Your task to perform on an android device: Open wifi settings Image 0: 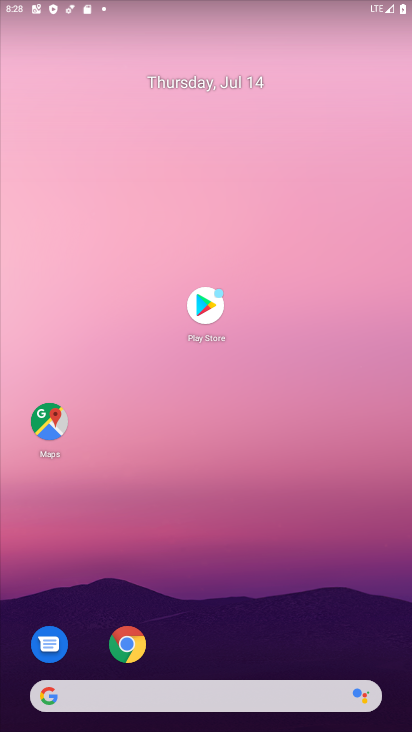
Step 0: drag from (182, 655) to (244, 230)
Your task to perform on an android device: Open wifi settings Image 1: 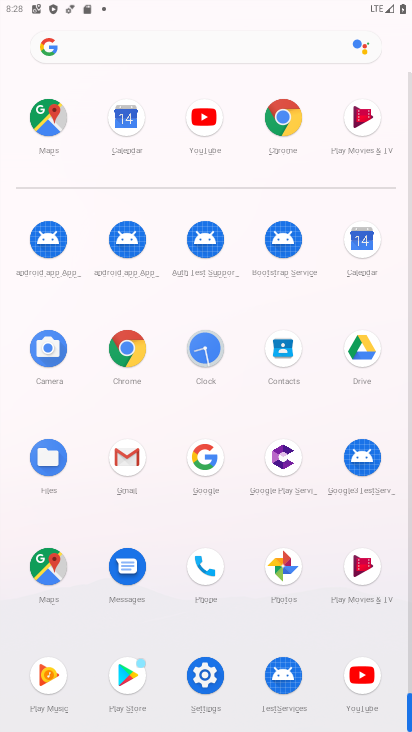
Step 1: click (194, 670)
Your task to perform on an android device: Open wifi settings Image 2: 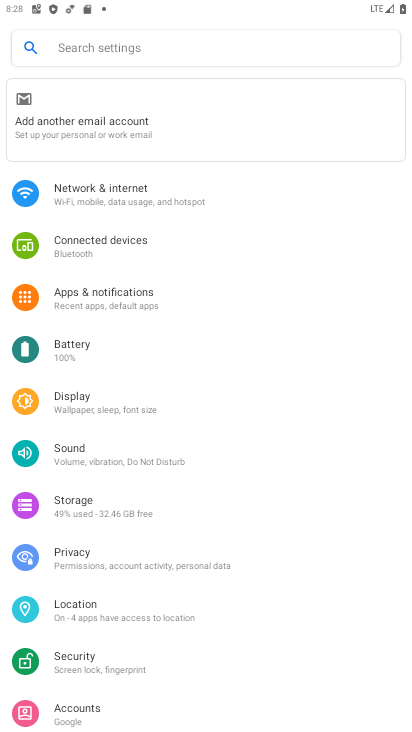
Step 2: click (166, 192)
Your task to perform on an android device: Open wifi settings Image 3: 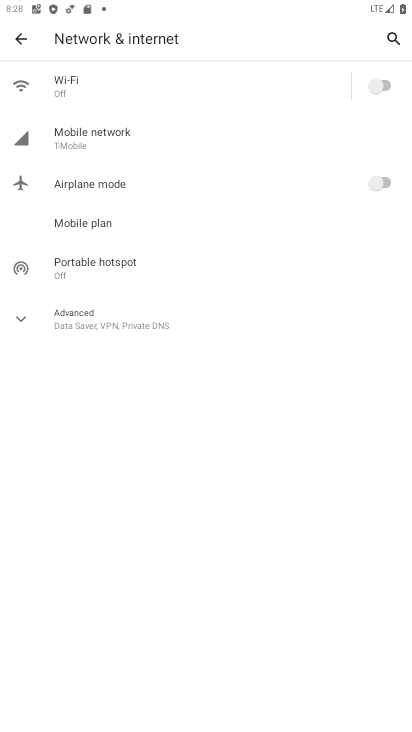
Step 3: click (133, 109)
Your task to perform on an android device: Open wifi settings Image 4: 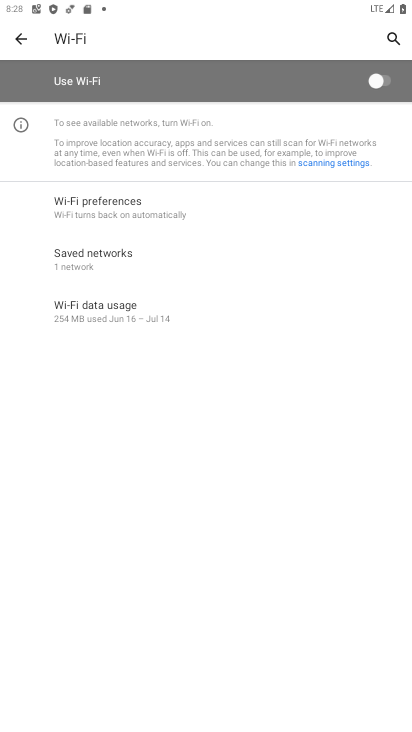
Step 4: task complete